Your task to perform on an android device: Go to Google Image 0: 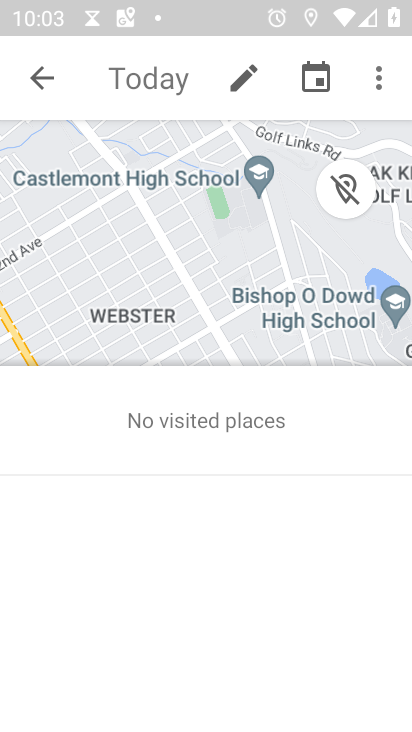
Step 0: click (31, 73)
Your task to perform on an android device: Go to Google Image 1: 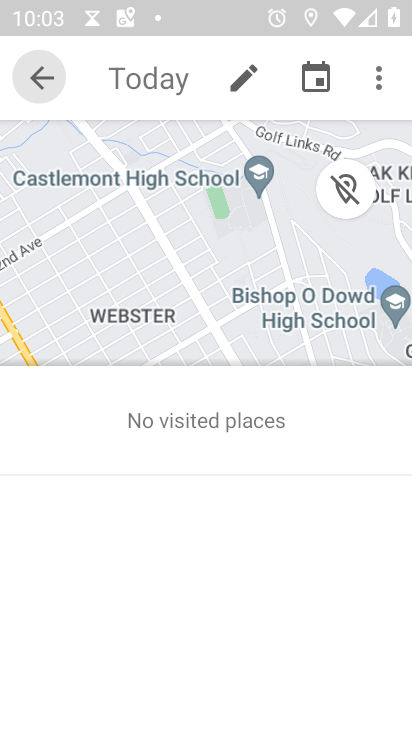
Step 1: click (30, 72)
Your task to perform on an android device: Go to Google Image 2: 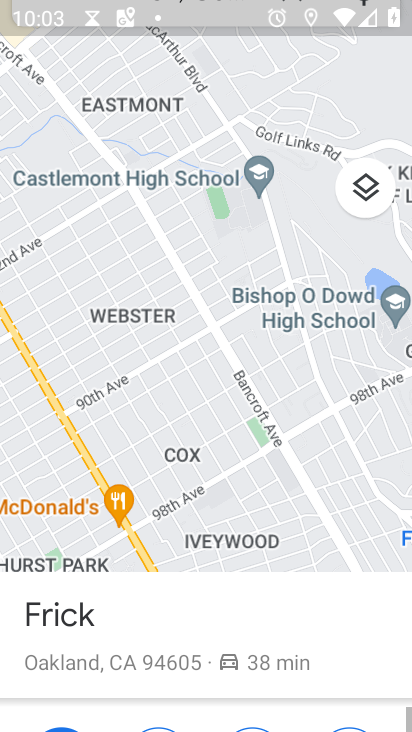
Step 2: click (35, 67)
Your task to perform on an android device: Go to Google Image 3: 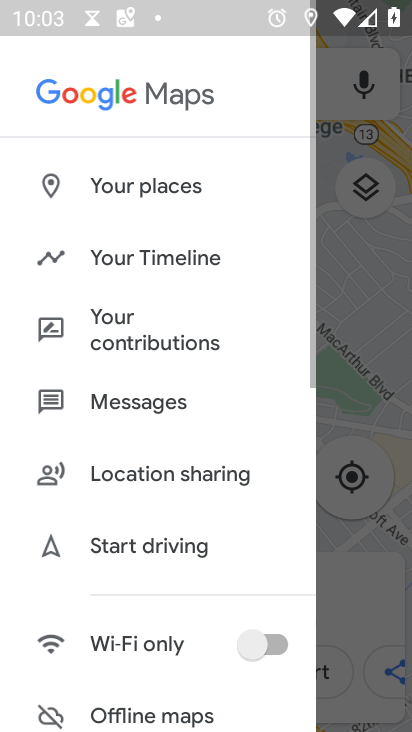
Step 3: press back button
Your task to perform on an android device: Go to Google Image 4: 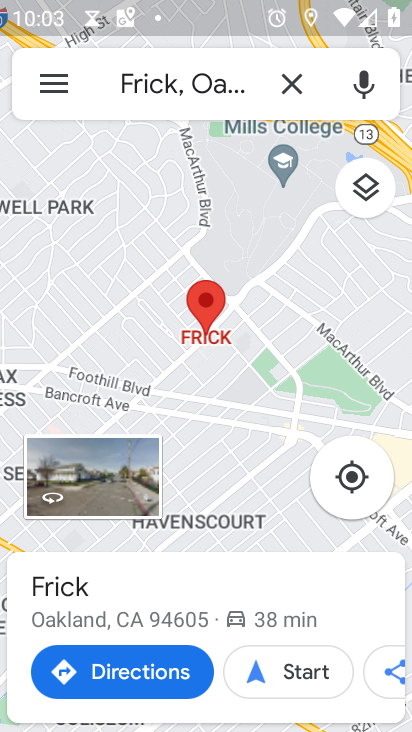
Step 4: press home button
Your task to perform on an android device: Go to Google Image 5: 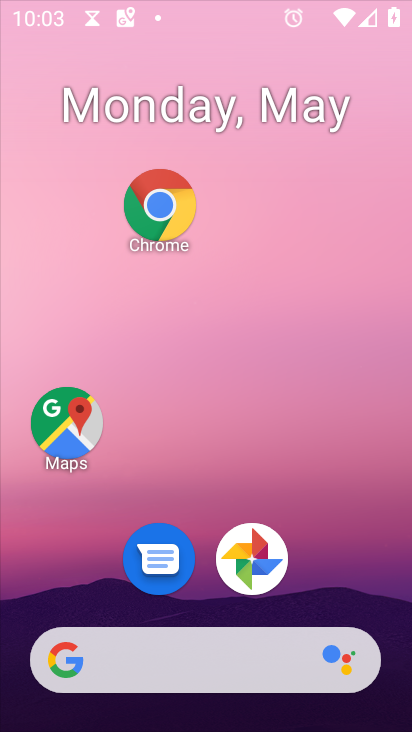
Step 5: press home button
Your task to perform on an android device: Go to Google Image 6: 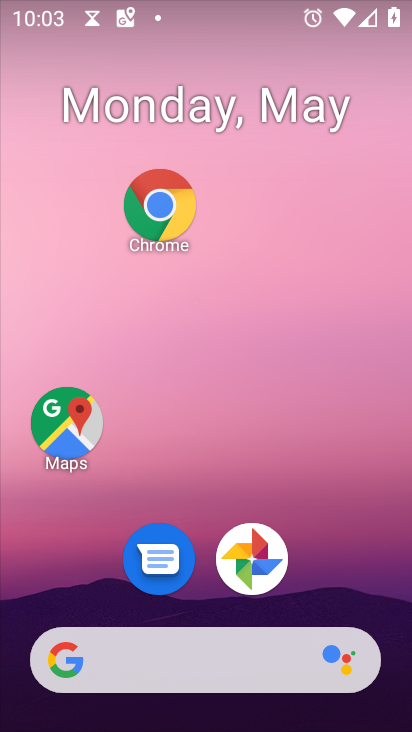
Step 6: drag from (210, 557) to (161, 103)
Your task to perform on an android device: Go to Google Image 7: 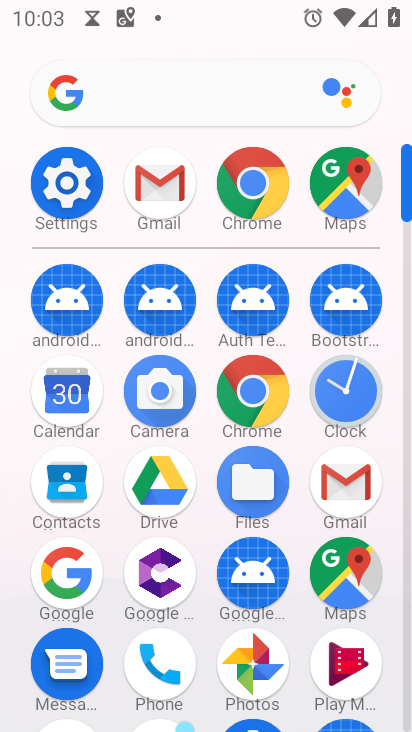
Step 7: click (58, 574)
Your task to perform on an android device: Go to Google Image 8: 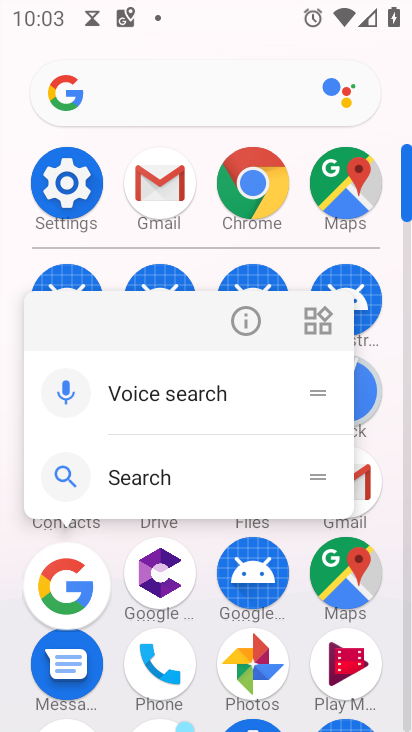
Step 8: click (65, 576)
Your task to perform on an android device: Go to Google Image 9: 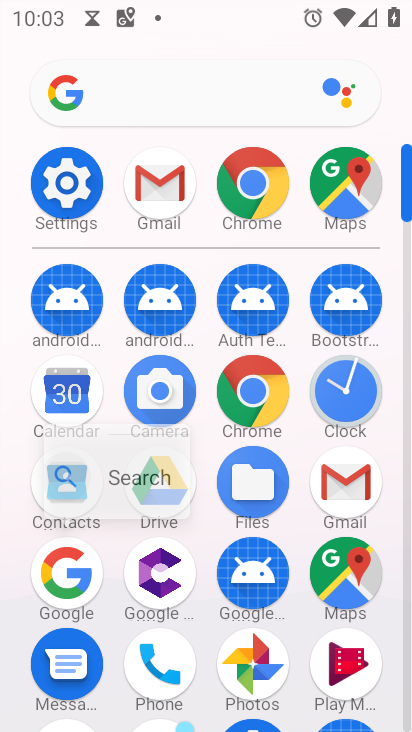
Step 9: click (66, 574)
Your task to perform on an android device: Go to Google Image 10: 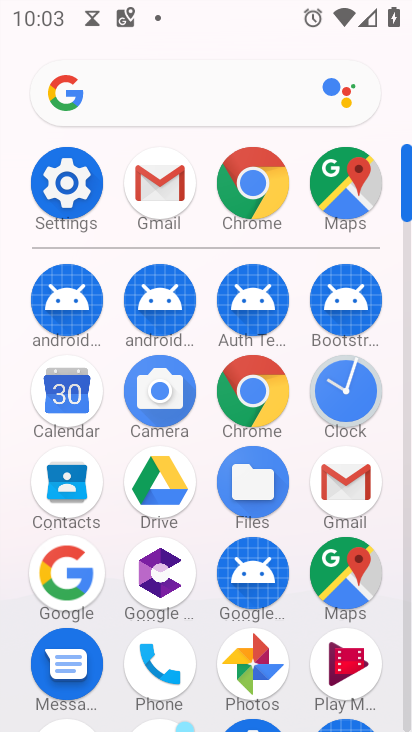
Step 10: click (66, 573)
Your task to perform on an android device: Go to Google Image 11: 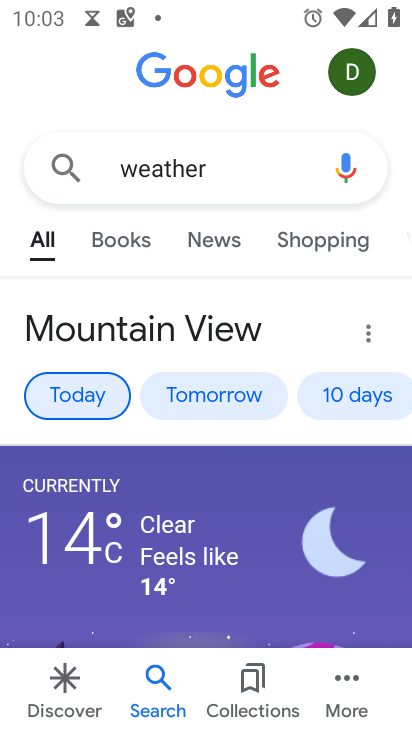
Step 11: click (75, 565)
Your task to perform on an android device: Go to Google Image 12: 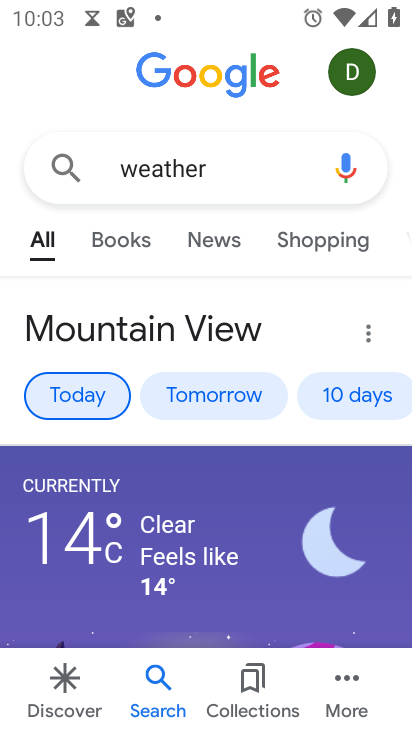
Step 12: task complete